Your task to perform on an android device: Search for the best rated headphones on Amazon. Image 0: 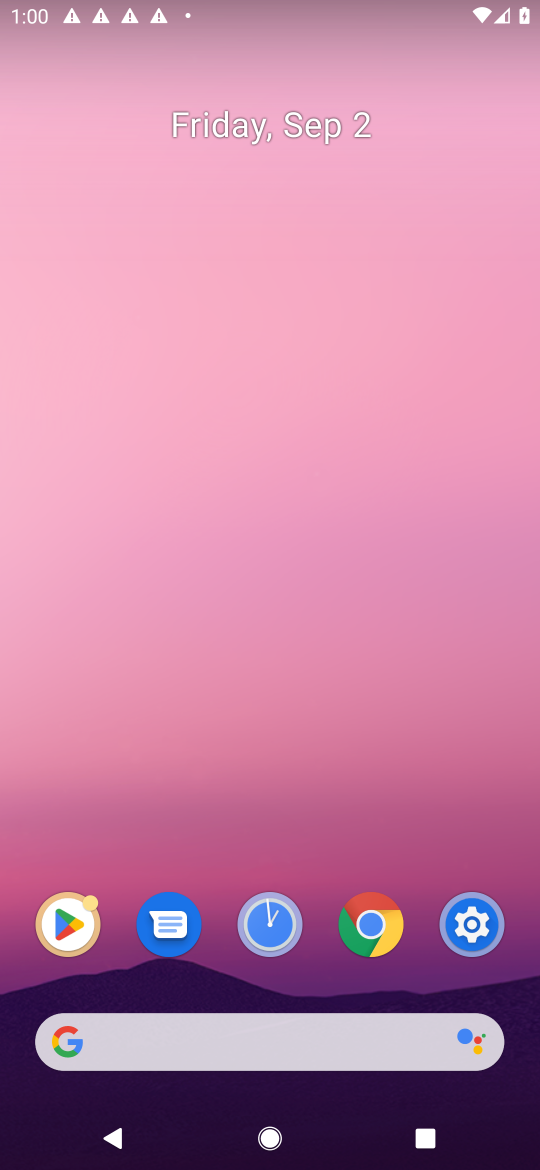
Step 0: click (296, 1050)
Your task to perform on an android device: Search for the best rated headphones on Amazon. Image 1: 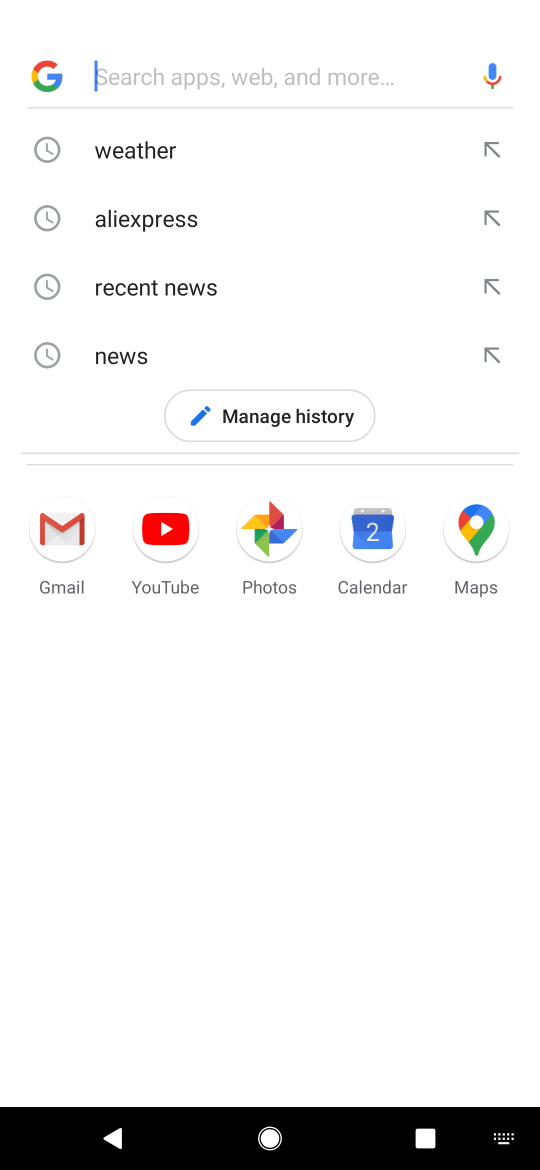
Step 1: type "Amazon"
Your task to perform on an android device: Search for the best rated headphones on Amazon. Image 2: 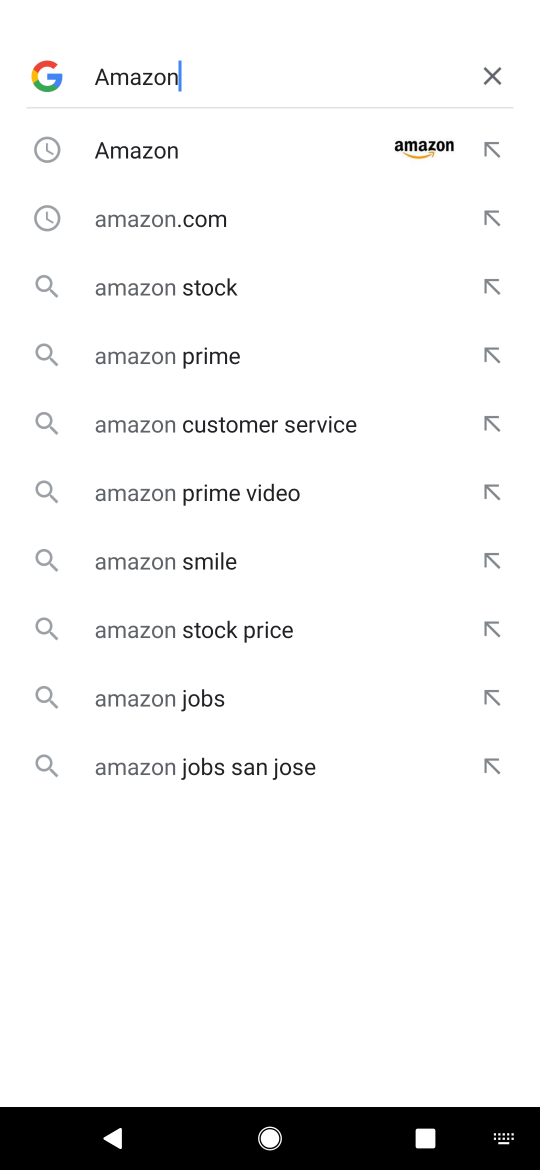
Step 2: type ""
Your task to perform on an android device: Search for the best rated headphones on Amazon. Image 3: 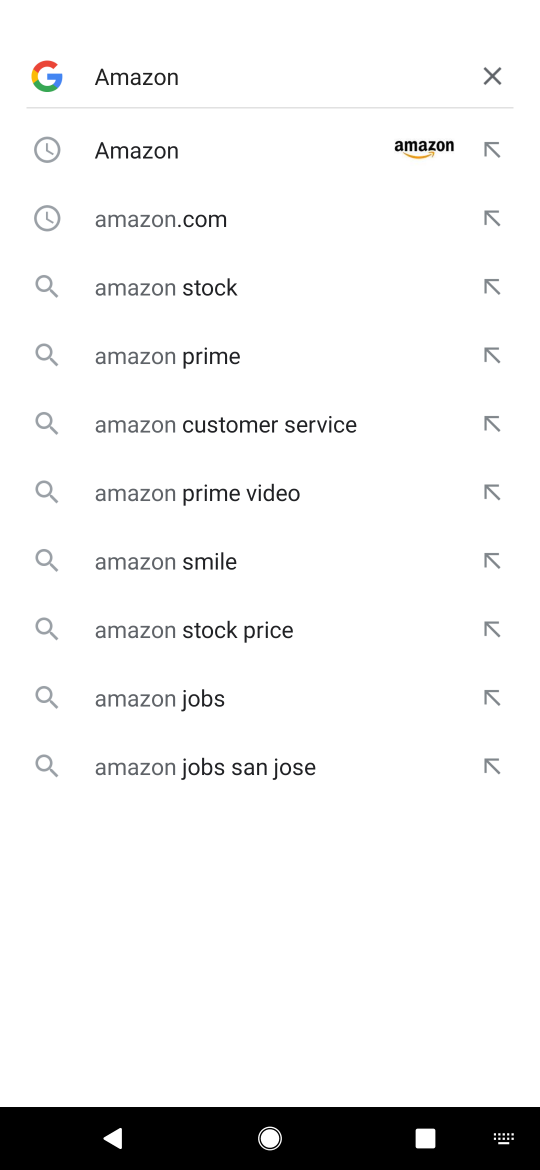
Step 3: click (147, 164)
Your task to perform on an android device: Search for the best rated headphones on Amazon. Image 4: 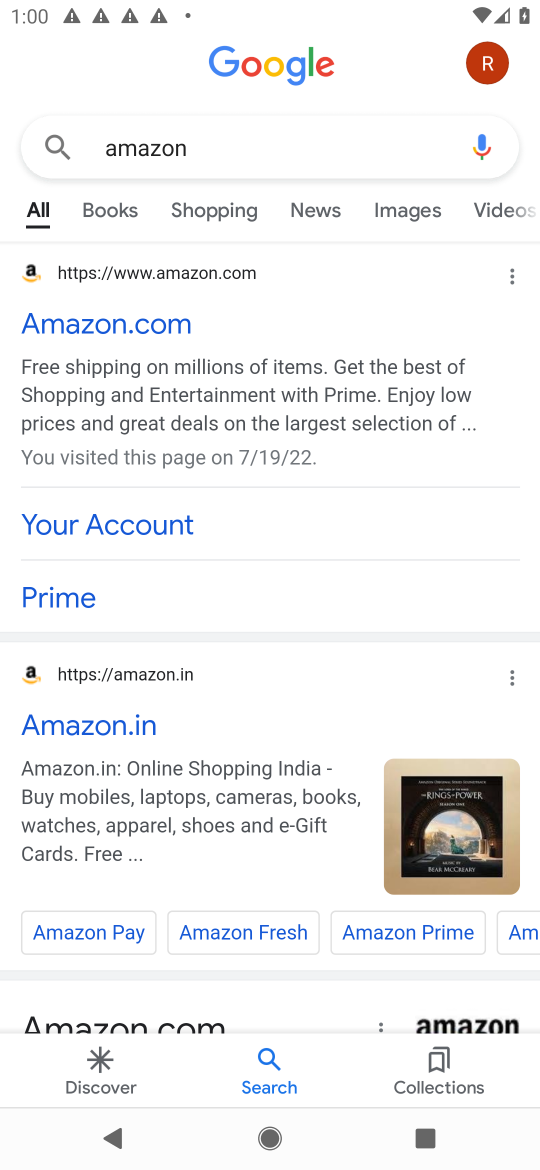
Step 4: click (123, 329)
Your task to perform on an android device: Search for the best rated headphones on Amazon. Image 5: 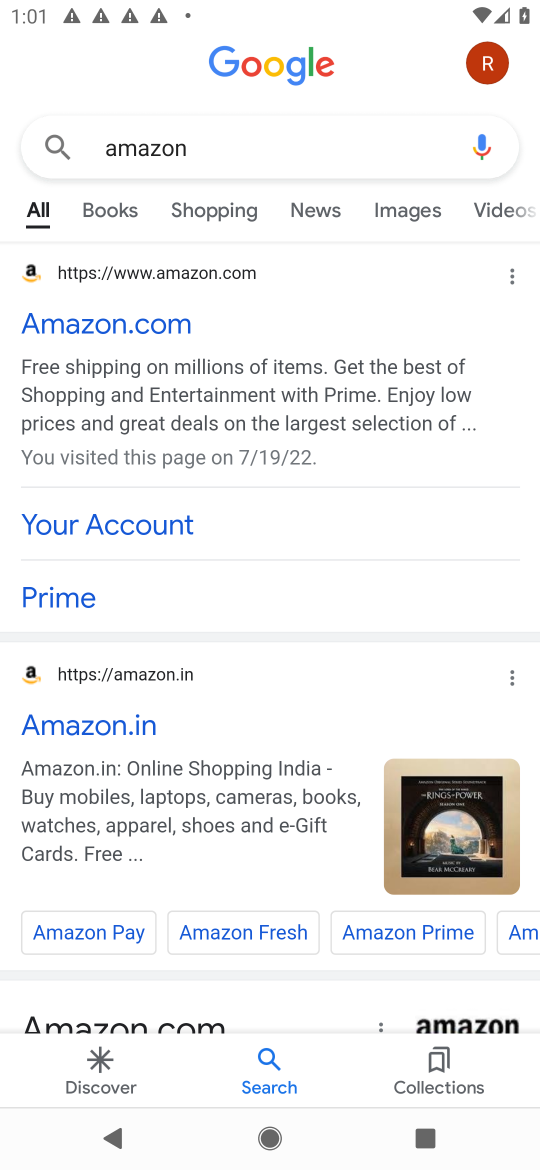
Step 5: click (160, 339)
Your task to perform on an android device: Search for the best rated headphones on Amazon. Image 6: 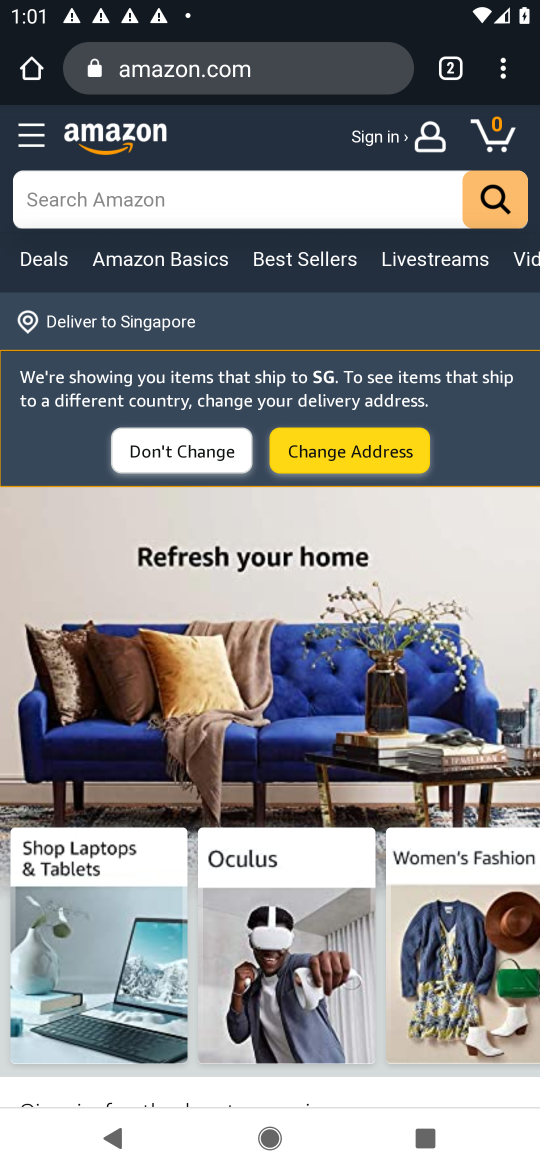
Step 6: click (204, 185)
Your task to perform on an android device: Search for the best rated headphones on Amazon. Image 7: 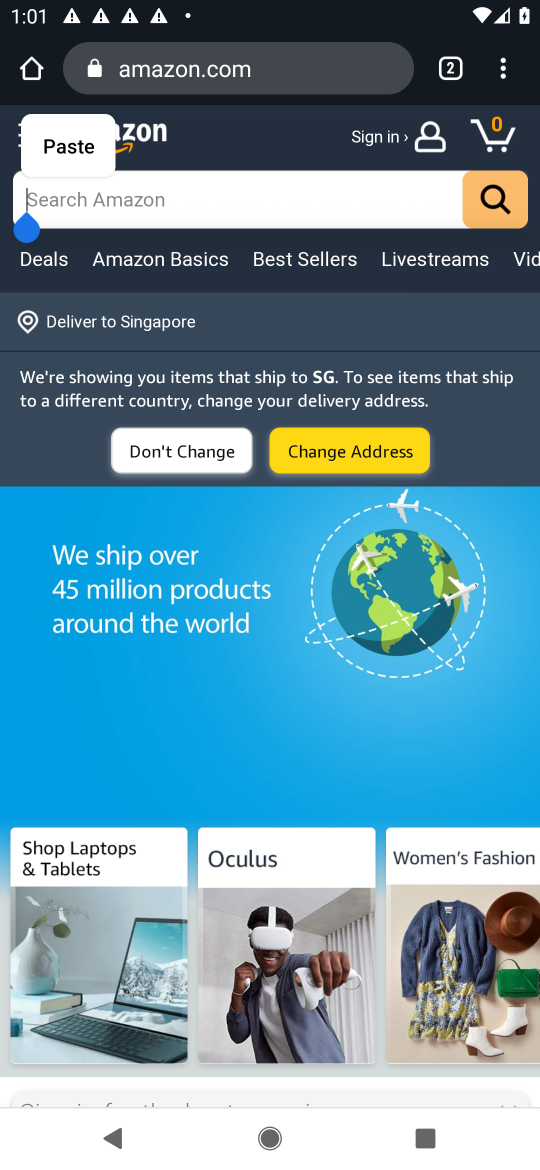
Step 7: click (195, 191)
Your task to perform on an android device: Search for the best rated headphones on Amazon. Image 8: 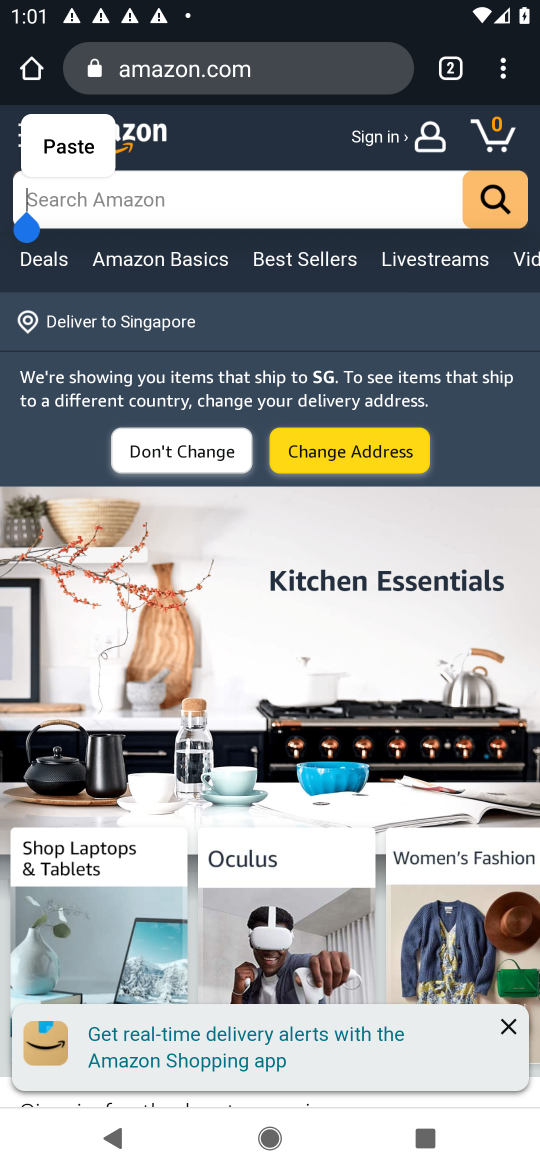
Step 8: click (220, 228)
Your task to perform on an android device: Search for the best rated headphones on Amazon. Image 9: 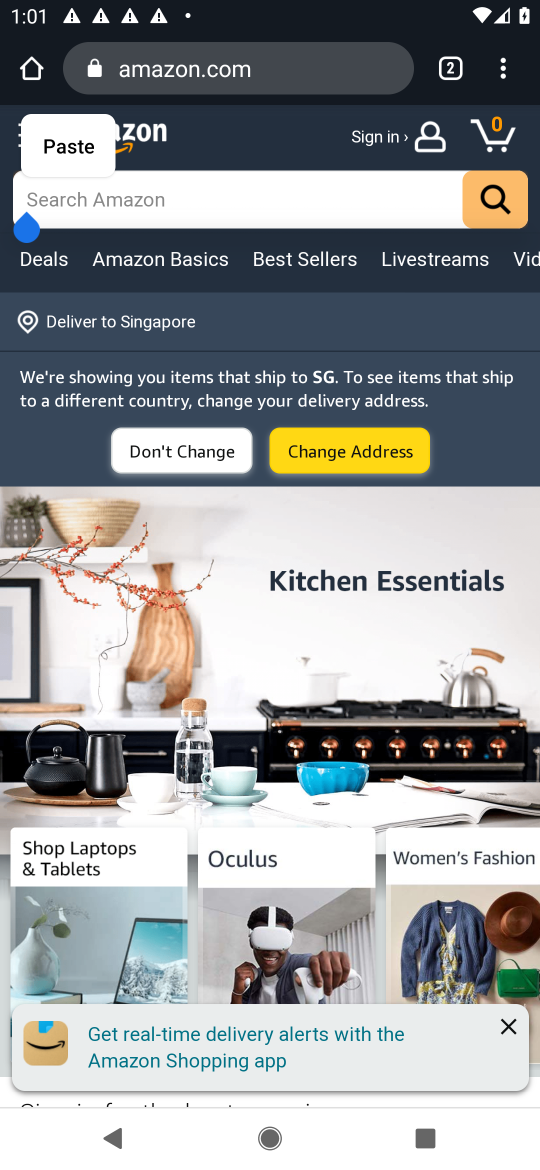
Step 9: click (241, 206)
Your task to perform on an android device: Search for the best rated headphones on Amazon. Image 10: 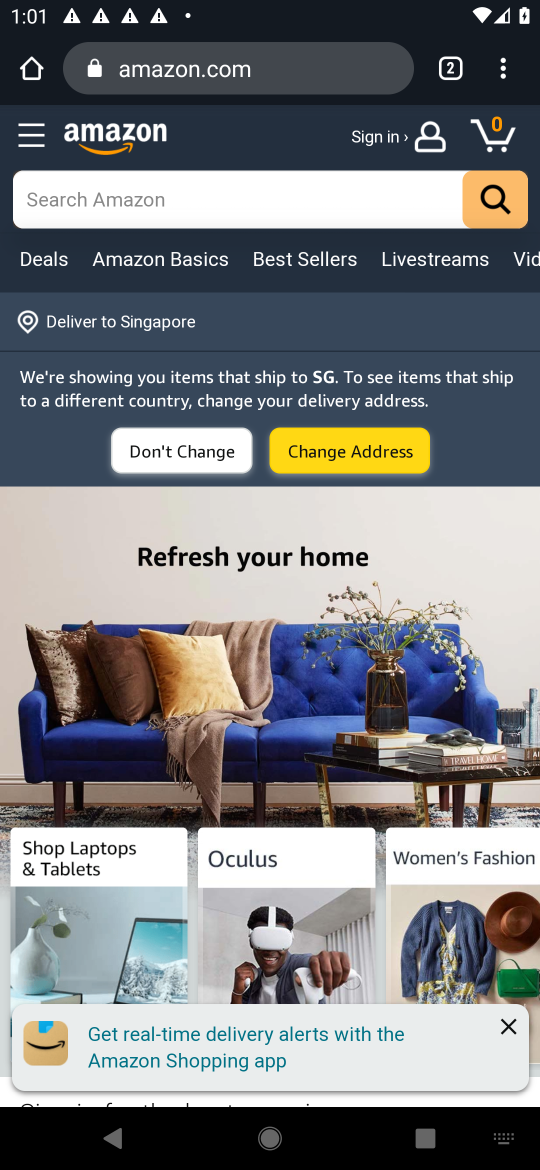
Step 10: click (136, 219)
Your task to perform on an android device: Search for the best rated headphones on Amazon. Image 11: 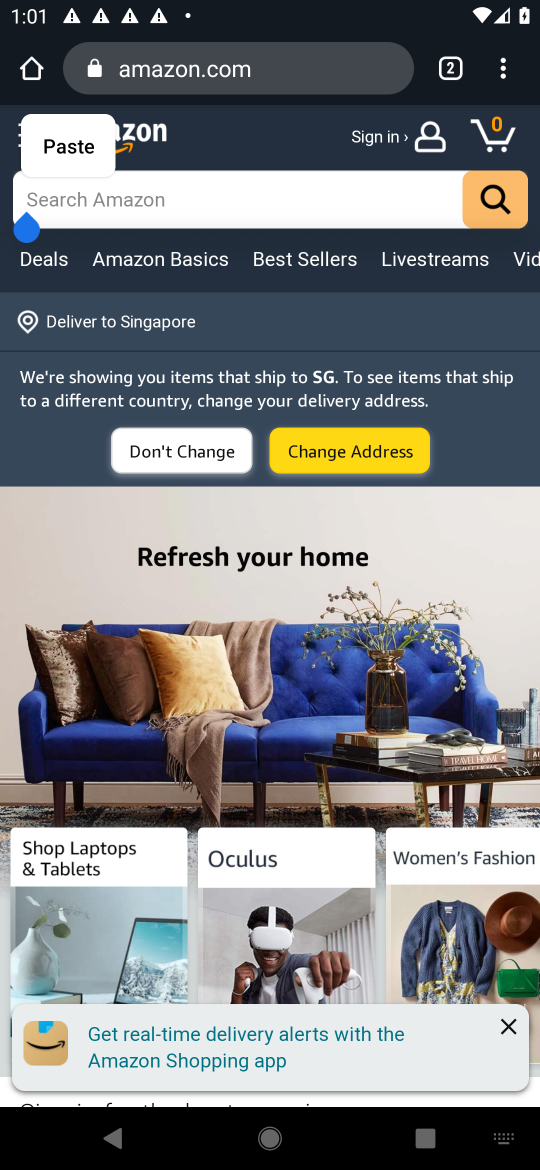
Step 11: click (136, 219)
Your task to perform on an android device: Search for the best rated headphones on Amazon. Image 12: 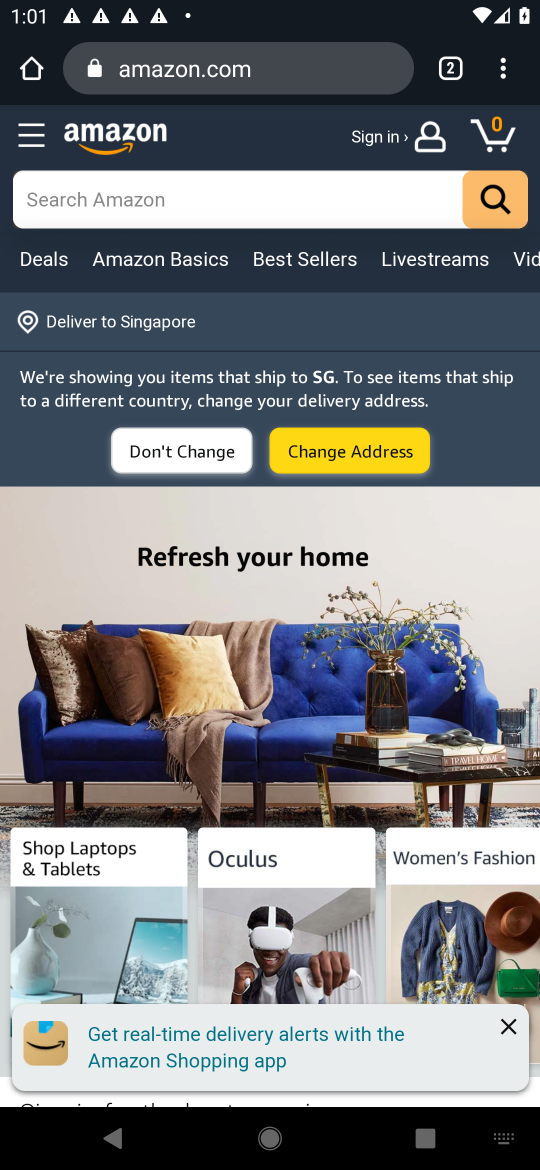
Step 12: click (203, 200)
Your task to perform on an android device: Search for the best rated headphones on Amazon. Image 13: 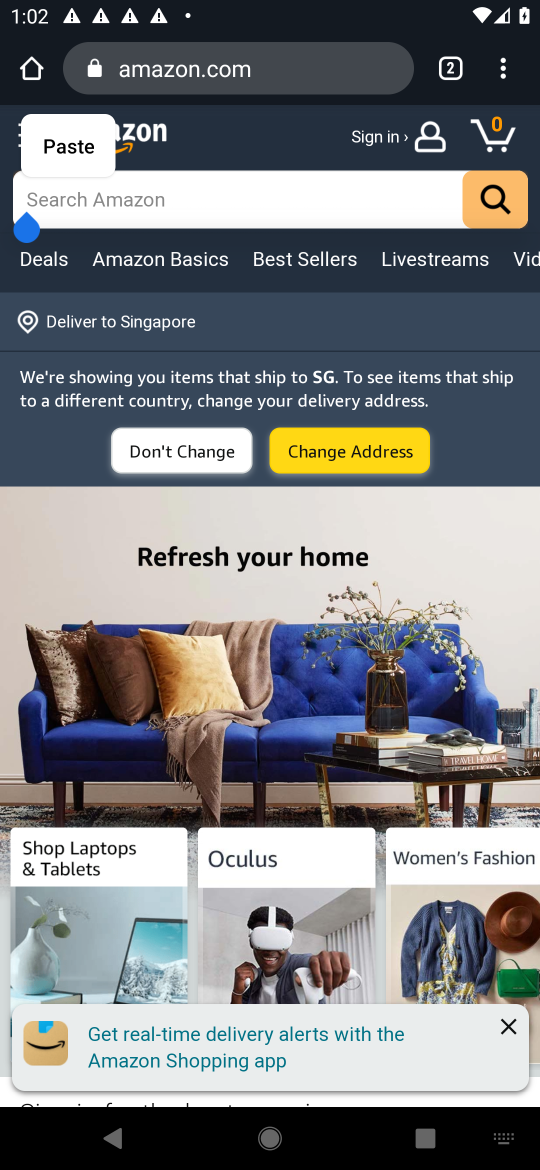
Step 13: click (325, 201)
Your task to perform on an android device: Search for the best rated headphones on Amazon. Image 14: 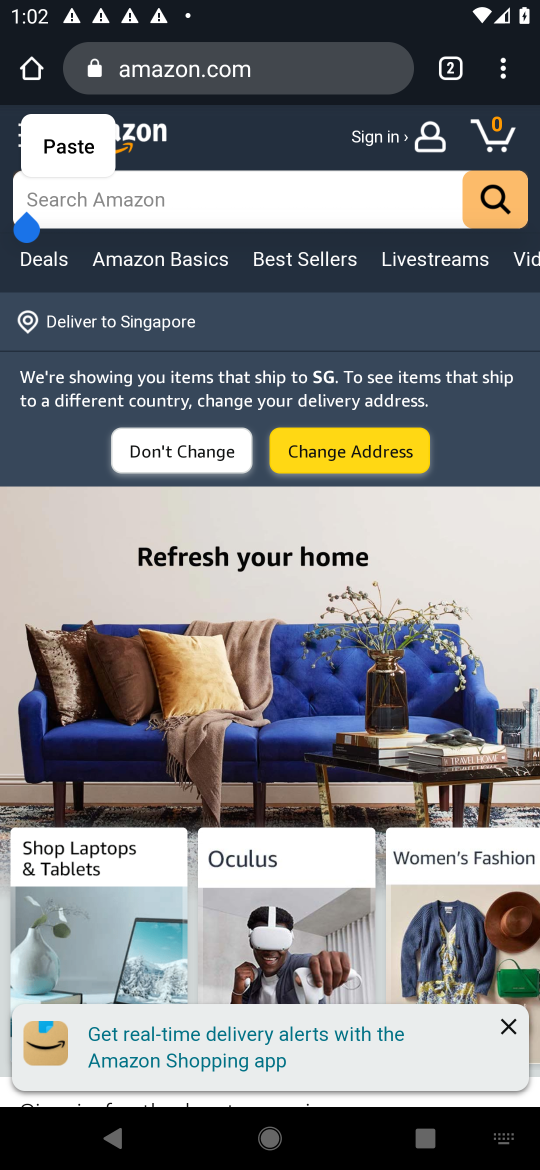
Step 14: click (127, 212)
Your task to perform on an android device: Search for the best rated headphones on Amazon. Image 15: 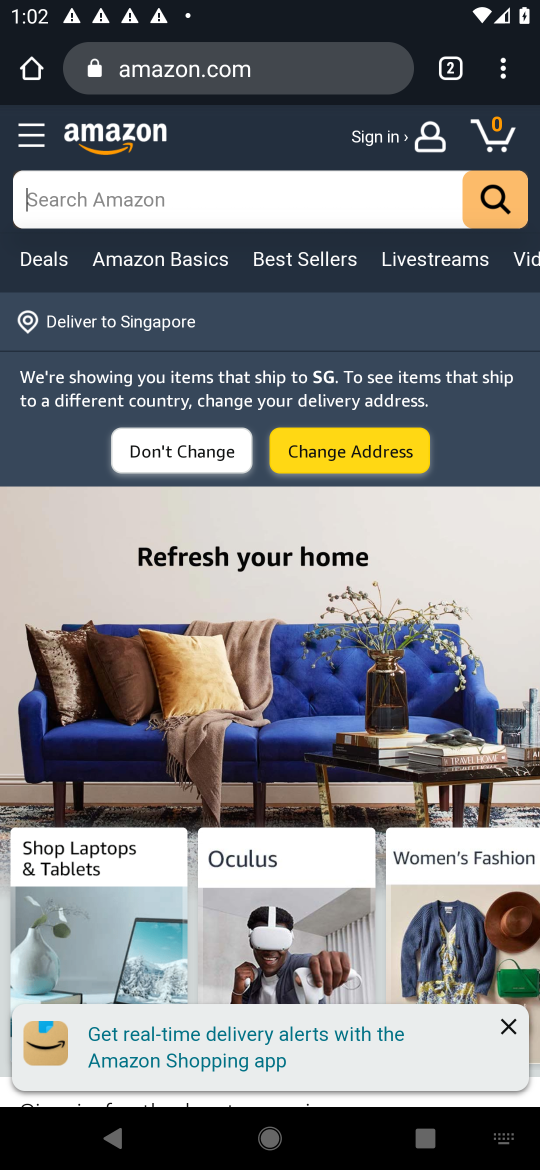
Step 15: click (139, 189)
Your task to perform on an android device: Search for the best rated headphones on Amazon. Image 16: 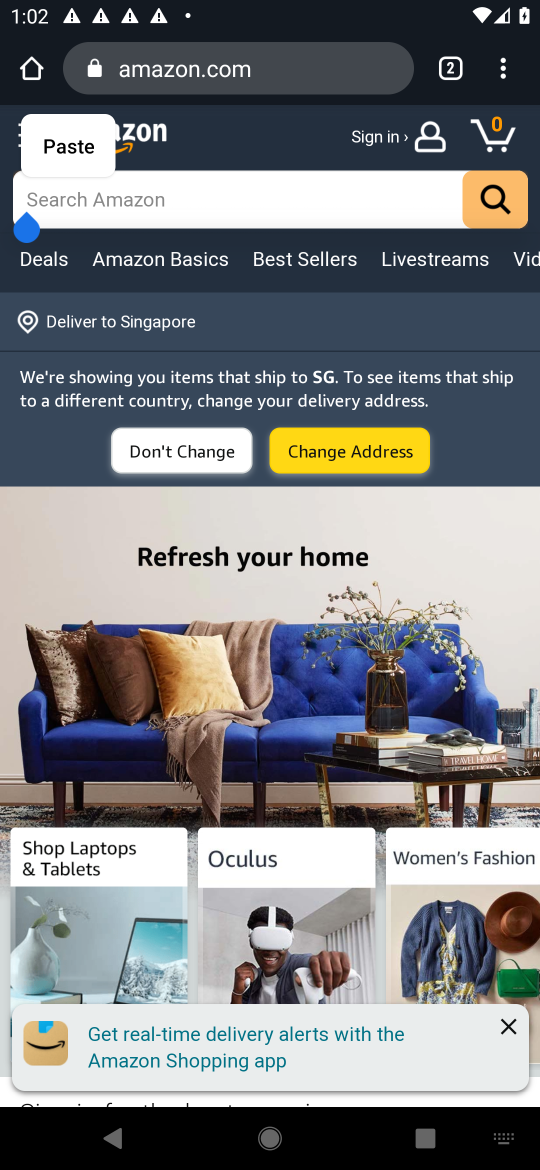
Step 16: type "headphones"
Your task to perform on an android device: Search for the best rated headphones on Amazon. Image 17: 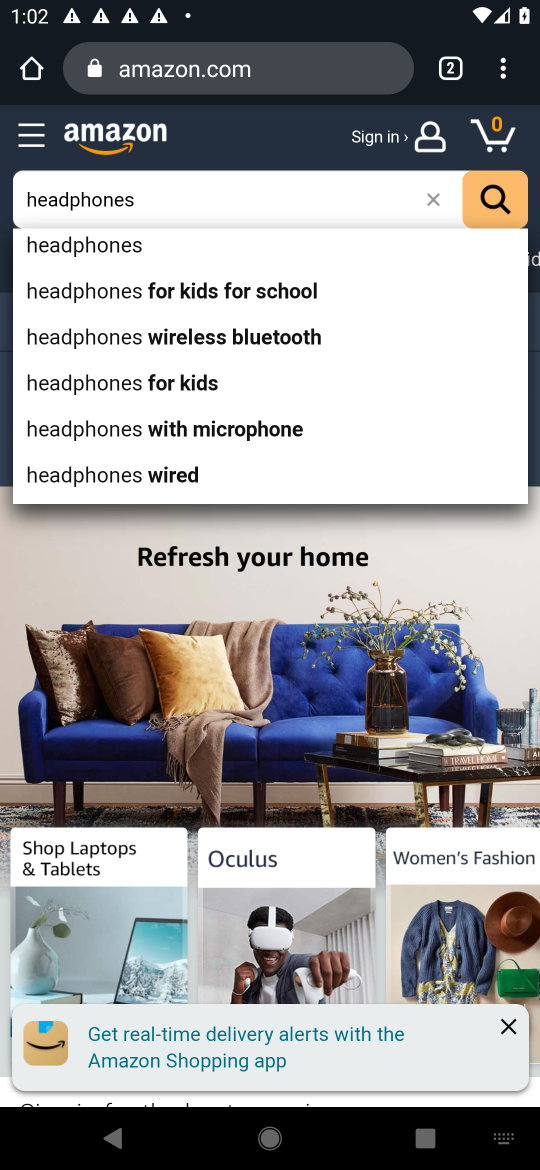
Step 17: click (93, 245)
Your task to perform on an android device: Search for the best rated headphones on Amazon. Image 18: 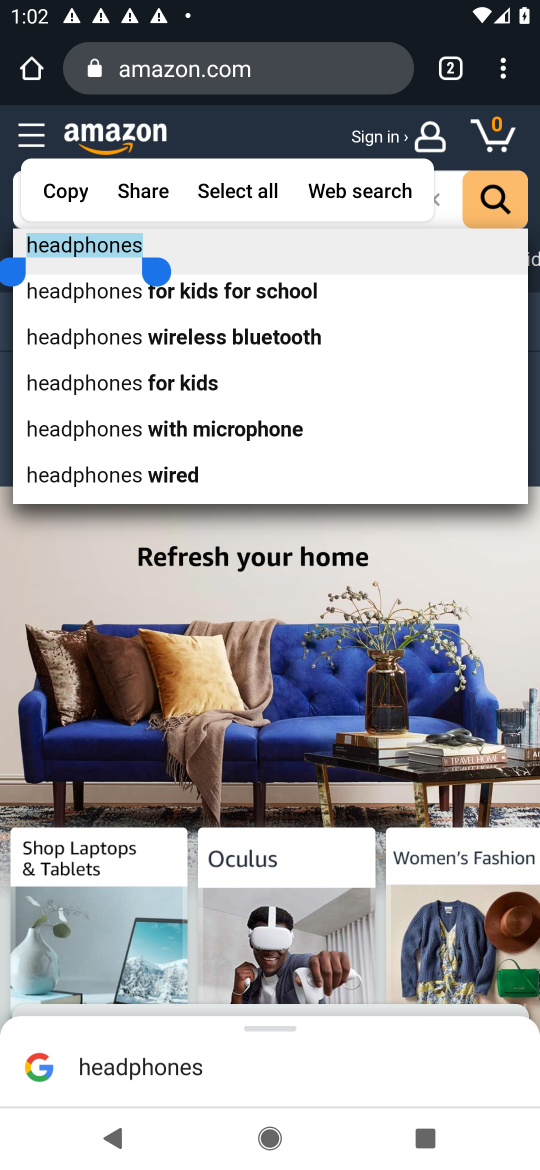
Step 18: click (116, 245)
Your task to perform on an android device: Search for the best rated headphones on Amazon. Image 19: 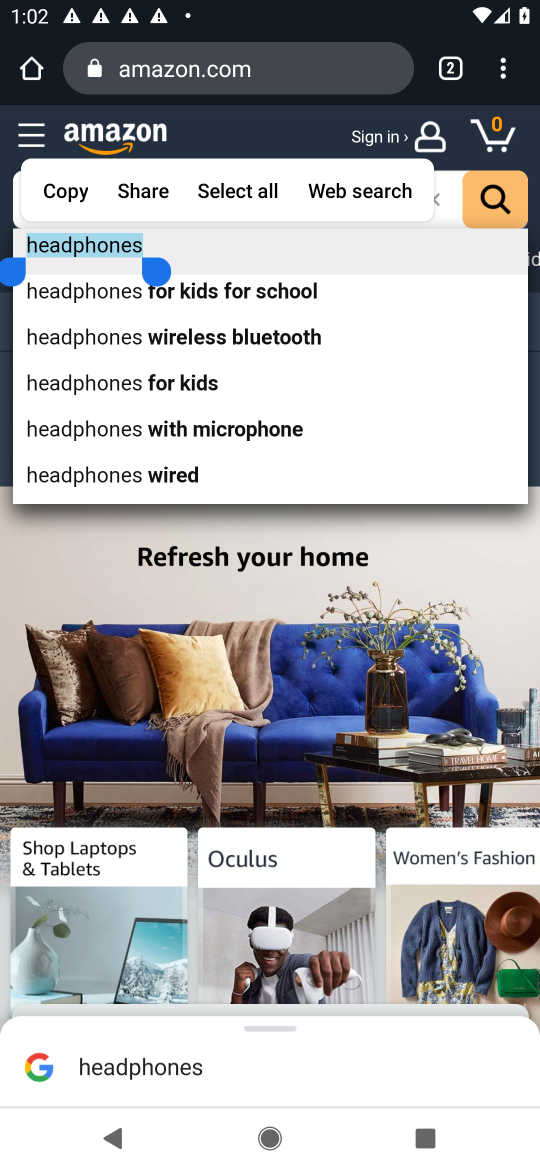
Step 19: click (128, 244)
Your task to perform on an android device: Search for the best rated headphones on Amazon. Image 20: 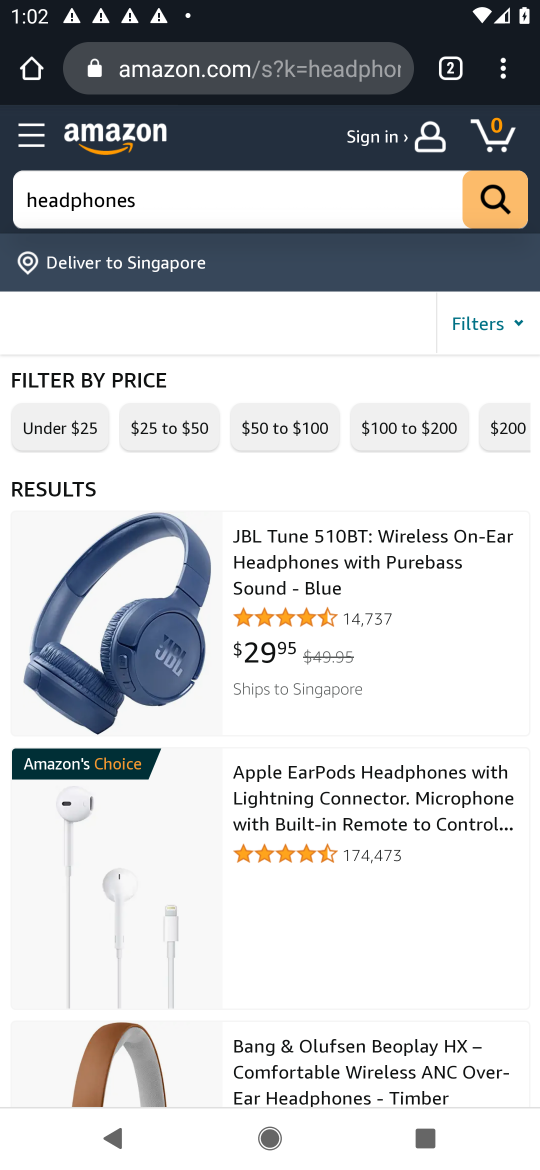
Step 20: task complete